Your task to perform on an android device: Where can I buy a nice beach bag? Image 0: 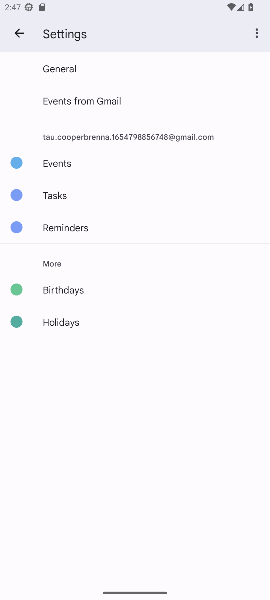
Step 0: press home button
Your task to perform on an android device: Where can I buy a nice beach bag? Image 1: 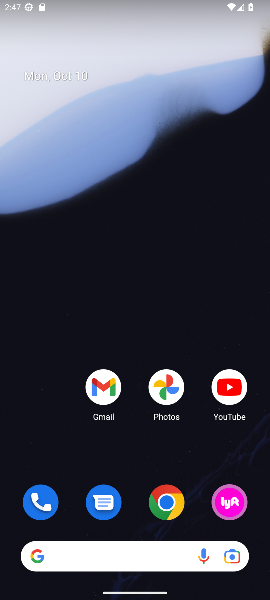
Step 1: click (160, 498)
Your task to perform on an android device: Where can I buy a nice beach bag? Image 2: 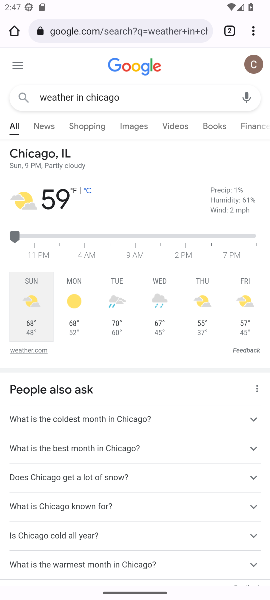
Step 2: click (142, 29)
Your task to perform on an android device: Where can I buy a nice beach bag? Image 3: 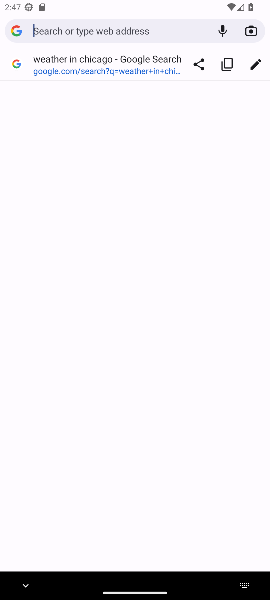
Step 3: type "Where can I buy a nice beach bag?"
Your task to perform on an android device: Where can I buy a nice beach bag? Image 4: 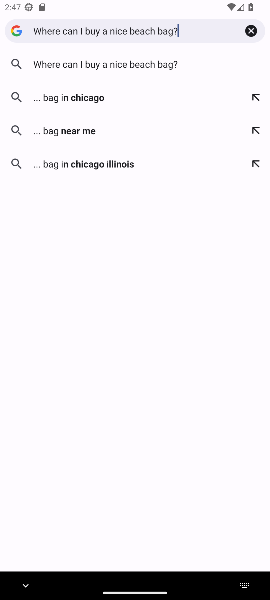
Step 4: click (91, 69)
Your task to perform on an android device: Where can I buy a nice beach bag? Image 5: 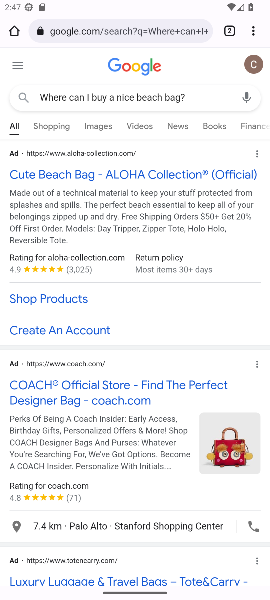
Step 5: click (82, 168)
Your task to perform on an android device: Where can I buy a nice beach bag? Image 6: 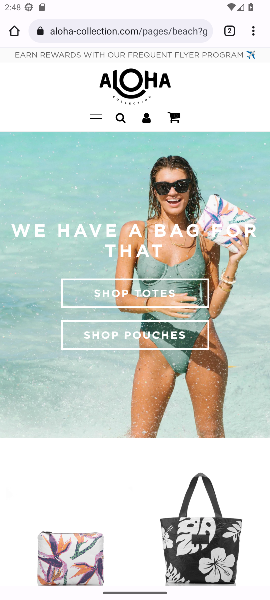
Step 6: task complete